Your task to perform on an android device: change the clock style Image 0: 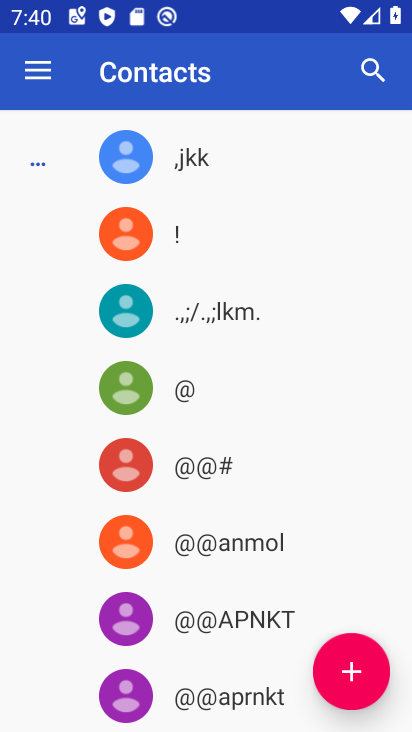
Step 0: press home button
Your task to perform on an android device: change the clock style Image 1: 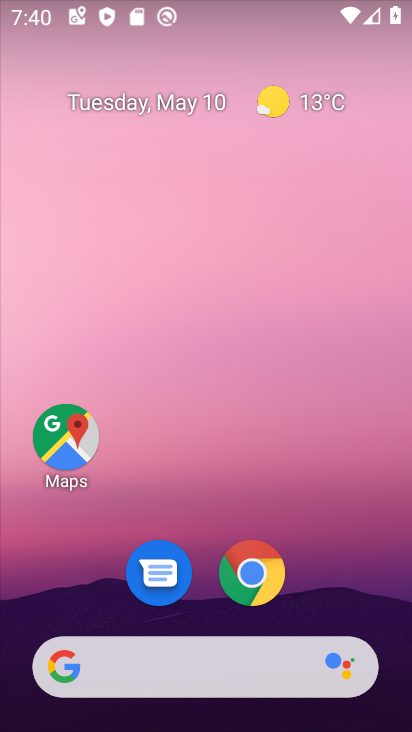
Step 1: drag from (362, 547) to (358, 10)
Your task to perform on an android device: change the clock style Image 2: 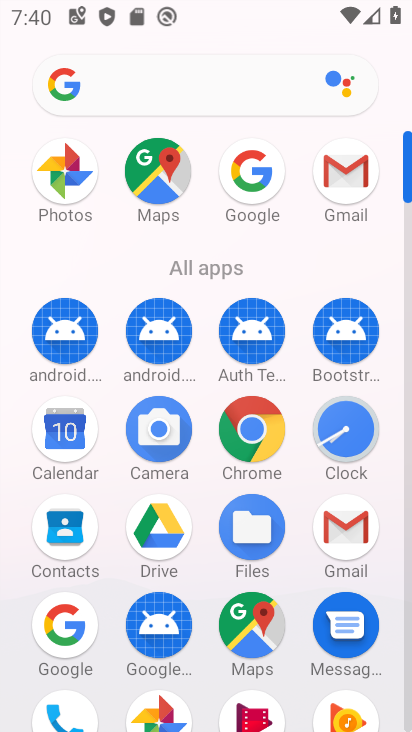
Step 2: click (341, 430)
Your task to perform on an android device: change the clock style Image 3: 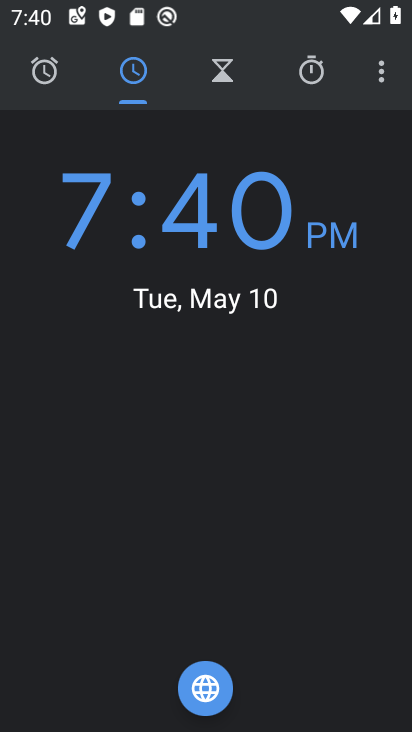
Step 3: click (380, 76)
Your task to perform on an android device: change the clock style Image 4: 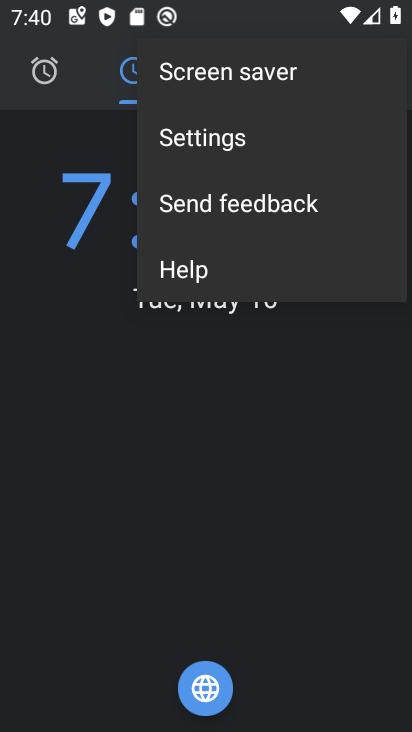
Step 4: click (243, 140)
Your task to perform on an android device: change the clock style Image 5: 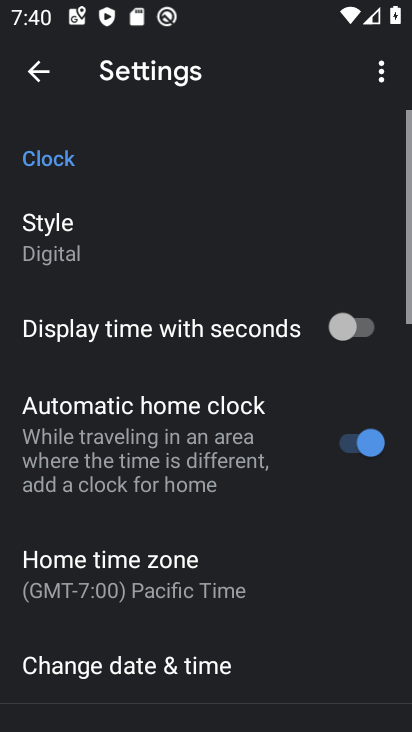
Step 5: click (65, 251)
Your task to perform on an android device: change the clock style Image 6: 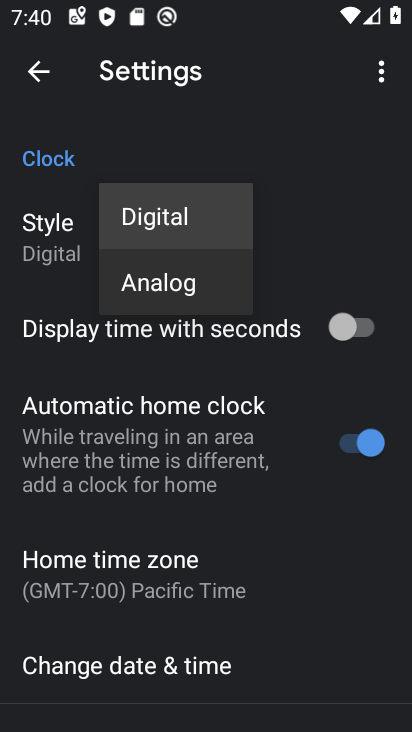
Step 6: click (148, 288)
Your task to perform on an android device: change the clock style Image 7: 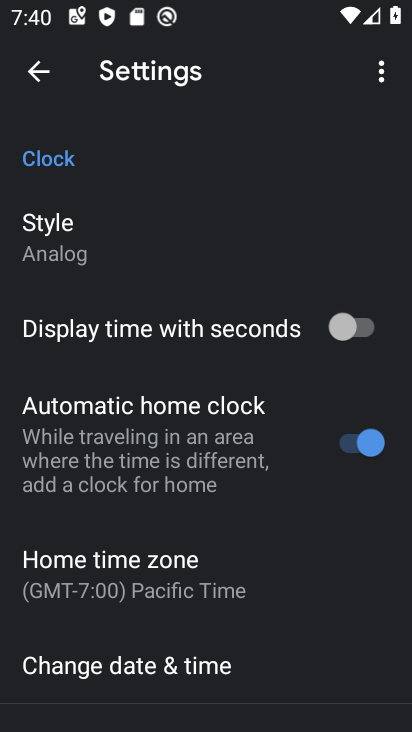
Step 7: task complete